Your task to perform on an android device: Turn off the flashlight Image 0: 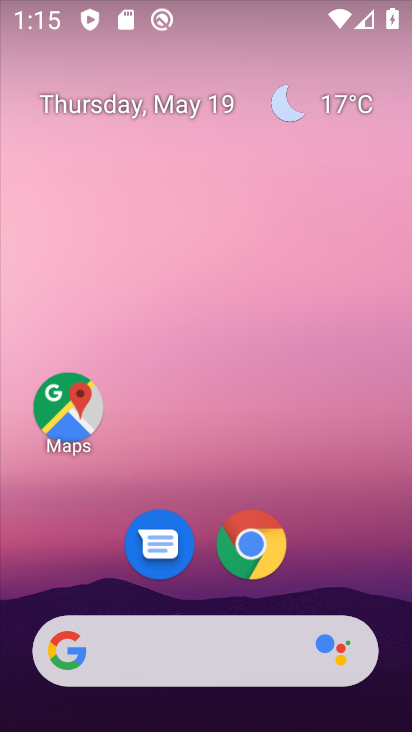
Step 0: drag from (189, 706) to (209, 234)
Your task to perform on an android device: Turn off the flashlight Image 1: 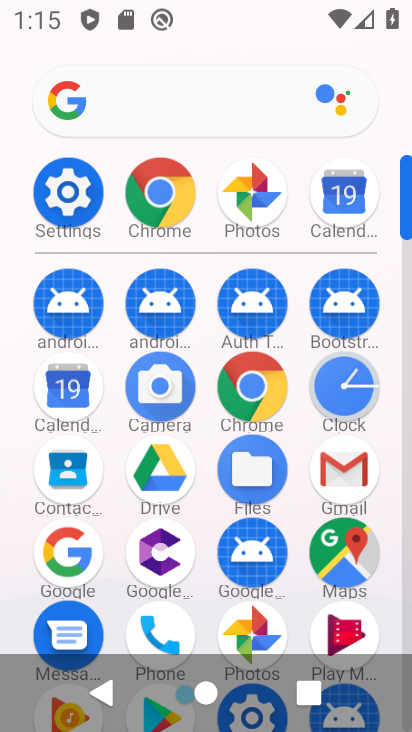
Step 1: click (59, 200)
Your task to perform on an android device: Turn off the flashlight Image 2: 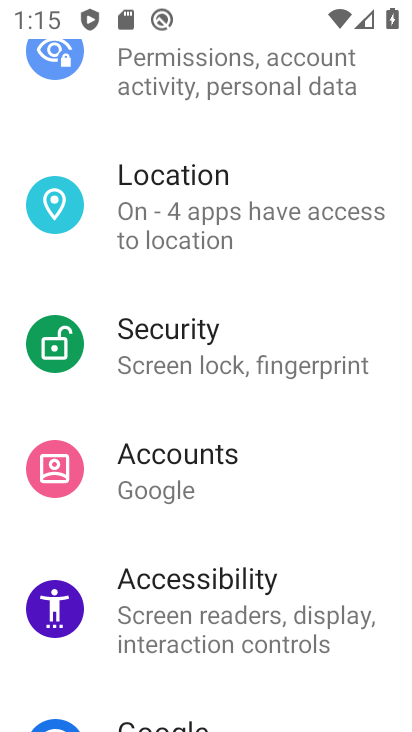
Step 2: task complete